Your task to perform on an android device: Search for Mexican restaurants on Maps Image 0: 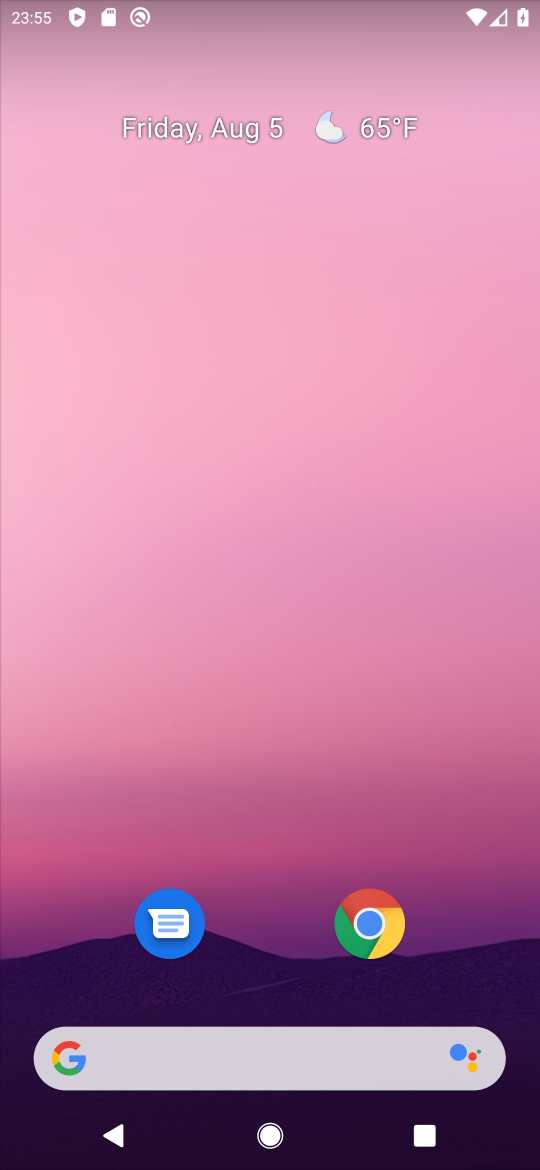
Step 0: drag from (483, 963) to (349, 298)
Your task to perform on an android device: Search for Mexican restaurants on Maps Image 1: 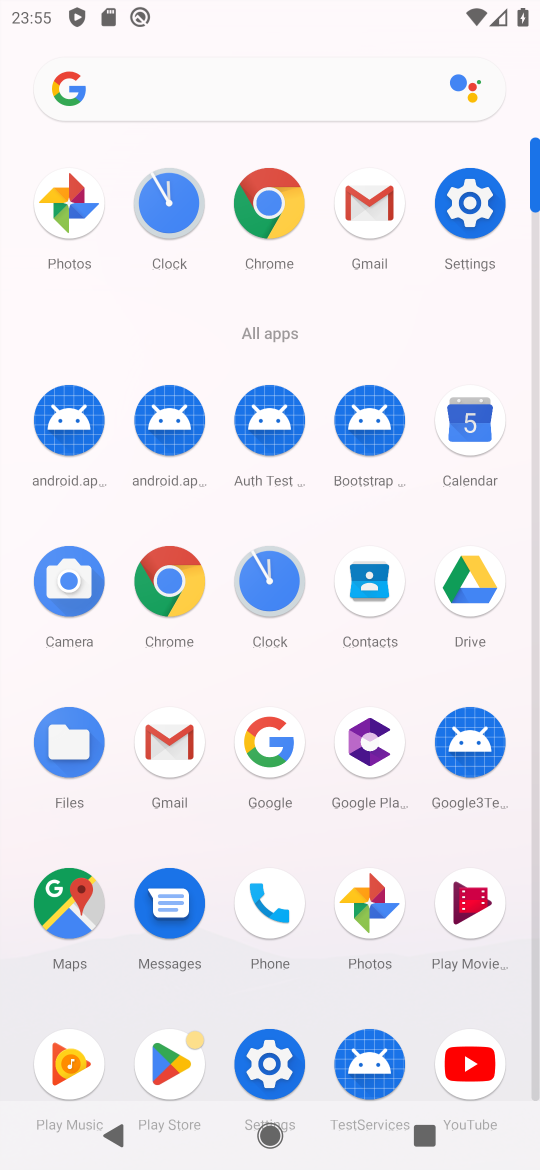
Step 1: click (62, 901)
Your task to perform on an android device: Search for Mexican restaurants on Maps Image 2: 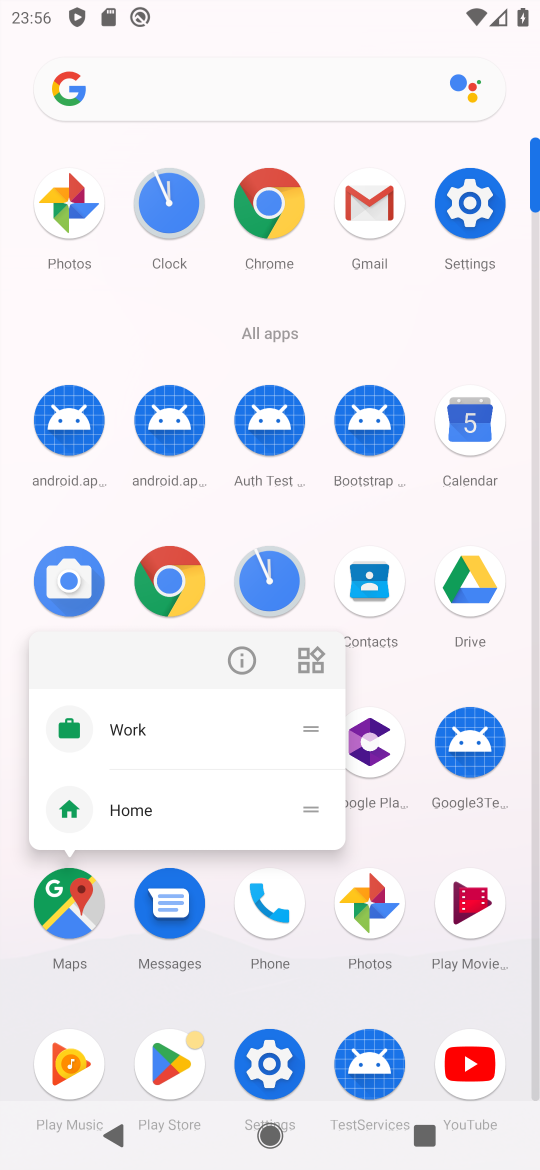
Step 2: click (62, 911)
Your task to perform on an android device: Search for Mexican restaurants on Maps Image 3: 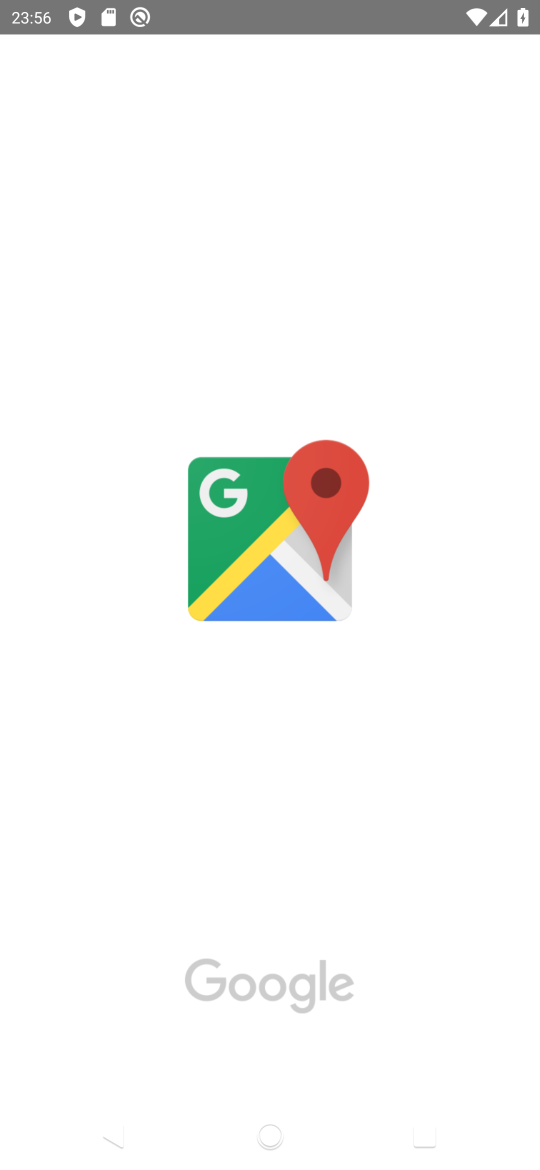
Step 3: task complete